Your task to perform on an android device: Add "lenovo thinkpad" to the cart on amazon.com, then select checkout. Image 0: 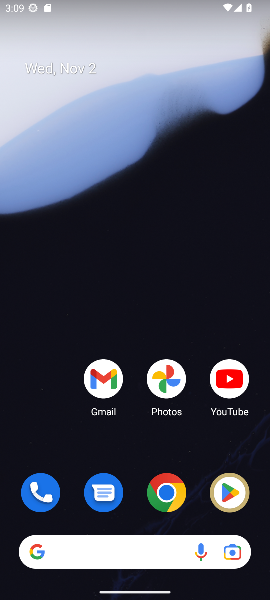
Step 0: click (167, 493)
Your task to perform on an android device: Add "lenovo thinkpad" to the cart on amazon.com, then select checkout. Image 1: 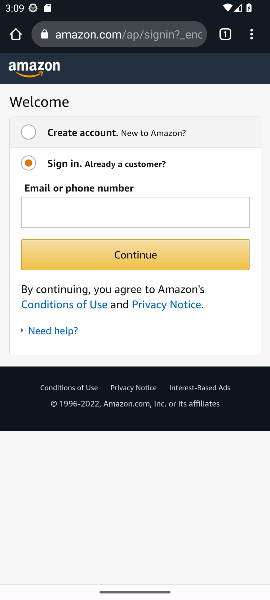
Step 1: click (146, 22)
Your task to perform on an android device: Add "lenovo thinkpad" to the cart on amazon.com, then select checkout. Image 2: 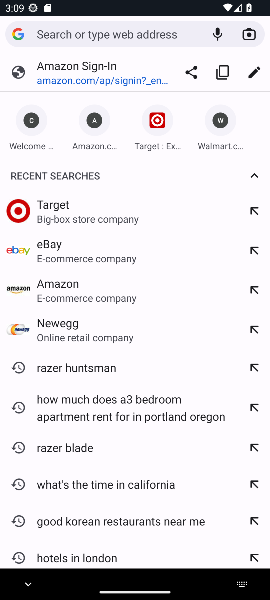
Step 2: click (64, 289)
Your task to perform on an android device: Add "lenovo thinkpad" to the cart on amazon.com, then select checkout. Image 3: 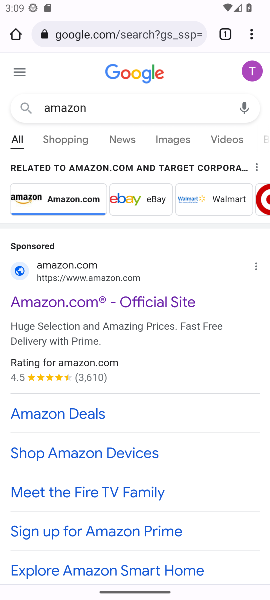
Step 3: click (43, 299)
Your task to perform on an android device: Add "lenovo thinkpad" to the cart on amazon.com, then select checkout. Image 4: 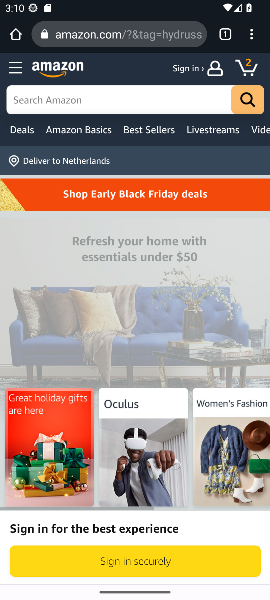
Step 4: click (91, 100)
Your task to perform on an android device: Add "lenovo thinkpad" to the cart on amazon.com, then select checkout. Image 5: 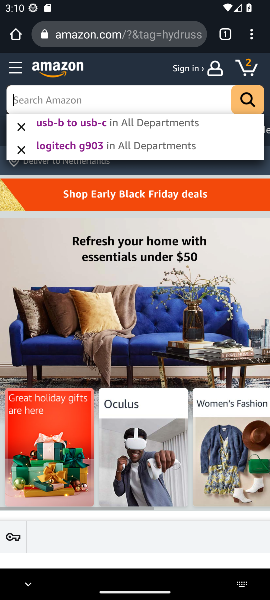
Step 5: type "lenovo thinkpad"
Your task to perform on an android device: Add "lenovo thinkpad" to the cart on amazon.com, then select checkout. Image 6: 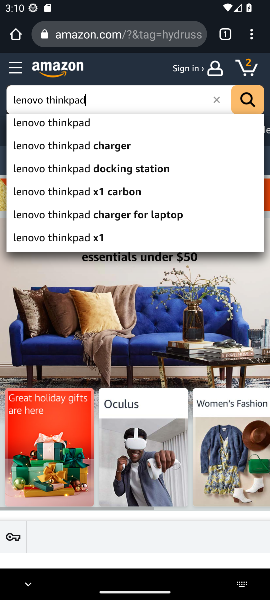
Step 6: click (51, 116)
Your task to perform on an android device: Add "lenovo thinkpad" to the cart on amazon.com, then select checkout. Image 7: 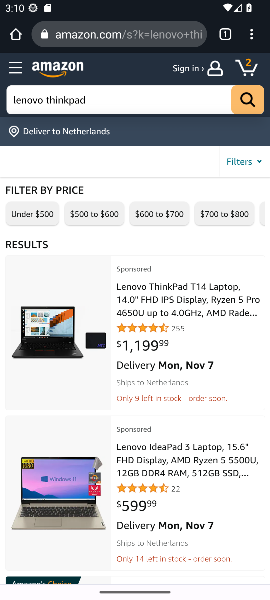
Step 7: click (146, 313)
Your task to perform on an android device: Add "lenovo thinkpad" to the cart on amazon.com, then select checkout. Image 8: 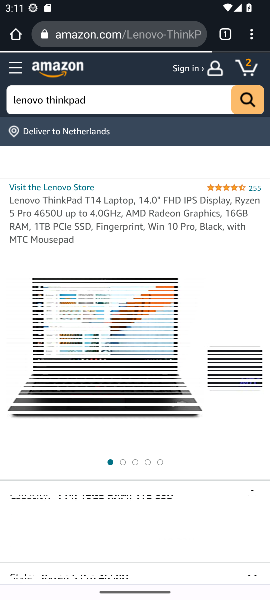
Step 8: drag from (192, 472) to (187, 331)
Your task to perform on an android device: Add "lenovo thinkpad" to the cart on amazon.com, then select checkout. Image 9: 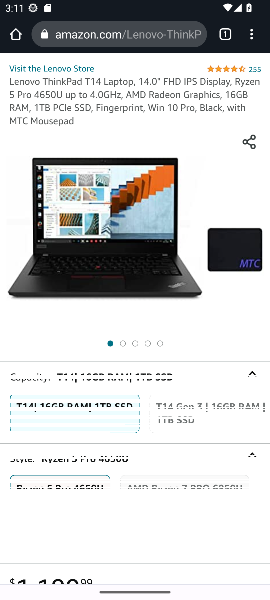
Step 9: drag from (168, 535) to (188, 298)
Your task to perform on an android device: Add "lenovo thinkpad" to the cart on amazon.com, then select checkout. Image 10: 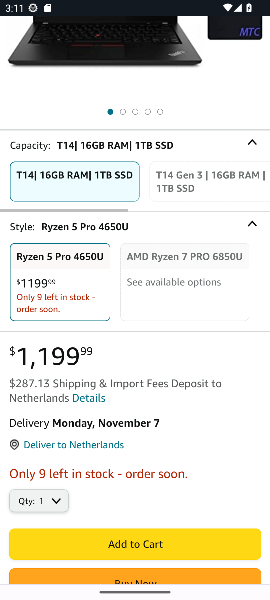
Step 10: click (125, 545)
Your task to perform on an android device: Add "lenovo thinkpad" to the cart on amazon.com, then select checkout. Image 11: 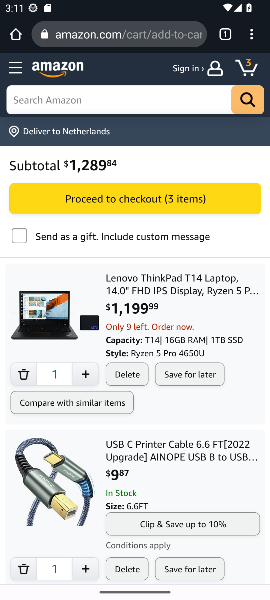
Step 11: click (130, 190)
Your task to perform on an android device: Add "lenovo thinkpad" to the cart on amazon.com, then select checkout. Image 12: 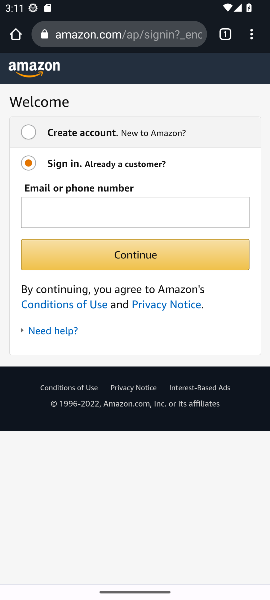
Step 12: task complete